Your task to perform on an android device: turn on bluetooth scan Image 0: 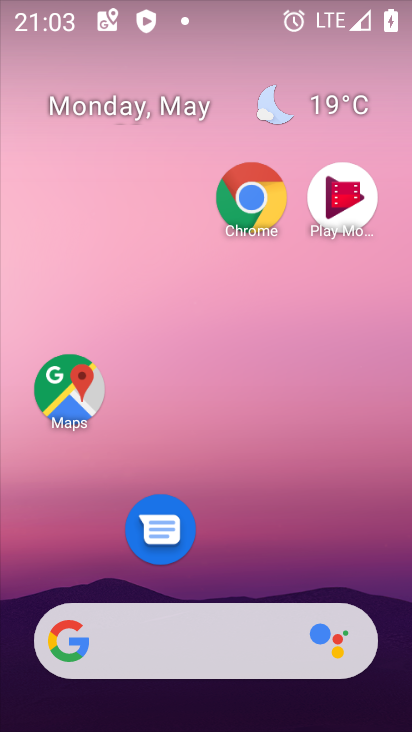
Step 0: drag from (244, 538) to (239, 20)
Your task to perform on an android device: turn on bluetooth scan Image 1: 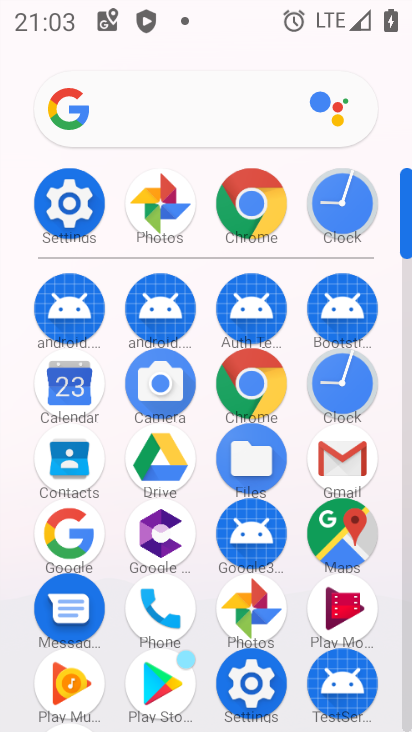
Step 1: click (67, 202)
Your task to perform on an android device: turn on bluetooth scan Image 2: 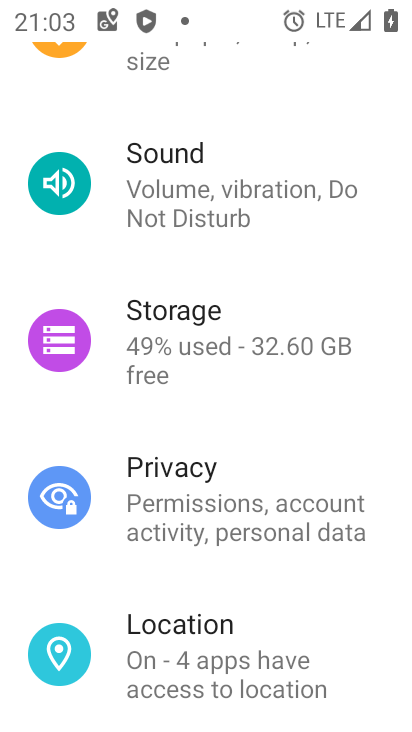
Step 2: drag from (208, 223) to (205, 596)
Your task to perform on an android device: turn on bluetooth scan Image 3: 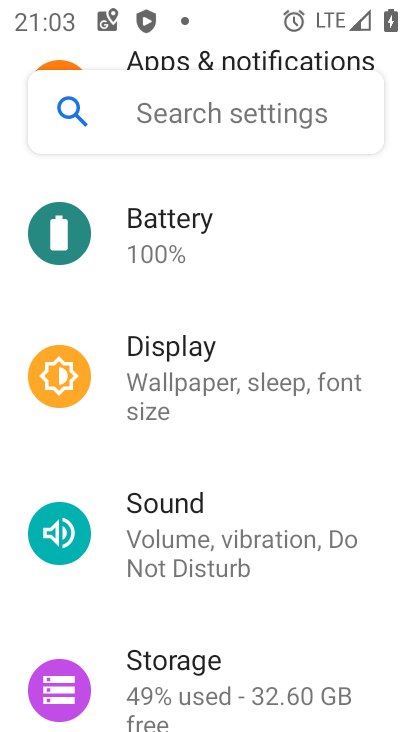
Step 3: drag from (256, 318) to (252, 599)
Your task to perform on an android device: turn on bluetooth scan Image 4: 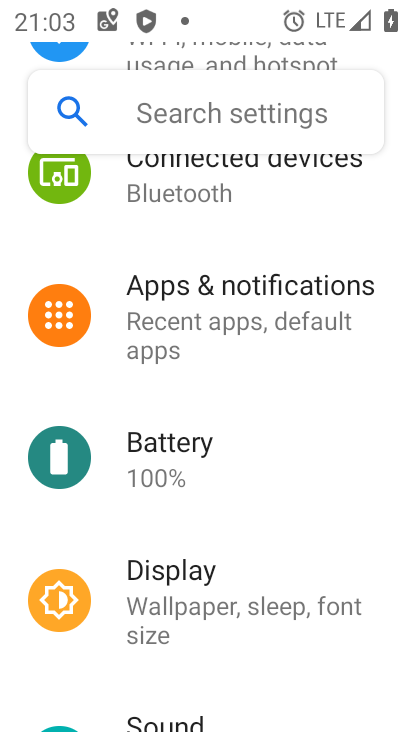
Step 4: drag from (264, 283) to (253, 612)
Your task to perform on an android device: turn on bluetooth scan Image 5: 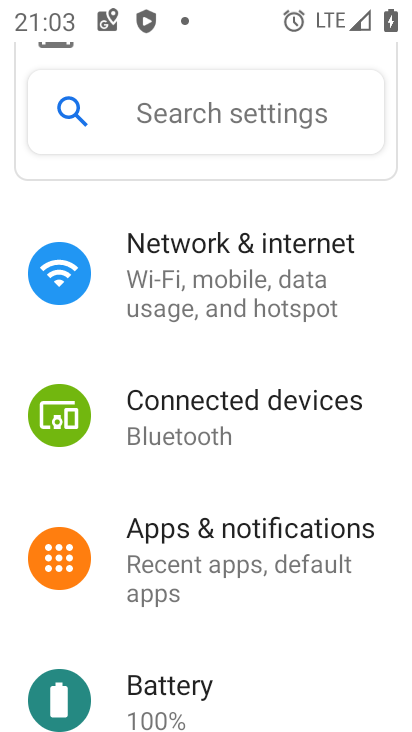
Step 5: drag from (238, 694) to (227, 240)
Your task to perform on an android device: turn on bluetooth scan Image 6: 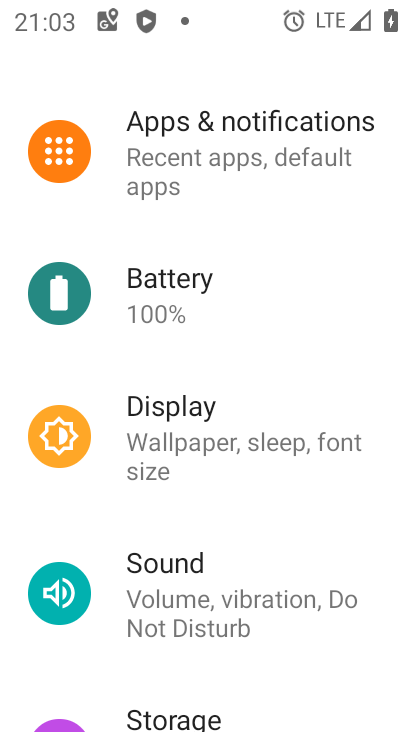
Step 6: drag from (224, 610) to (232, 219)
Your task to perform on an android device: turn on bluetooth scan Image 7: 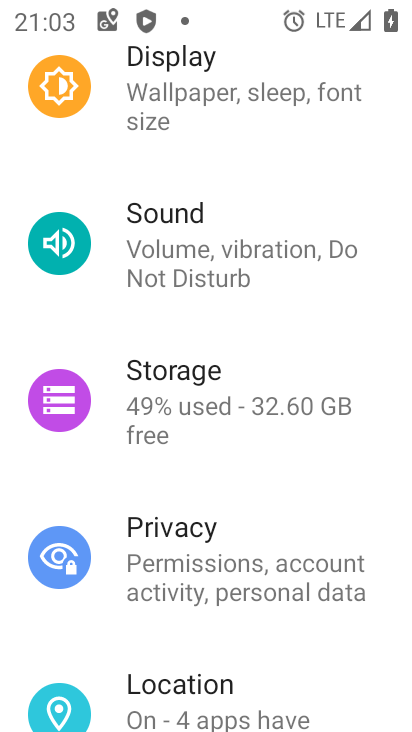
Step 7: click (180, 721)
Your task to perform on an android device: turn on bluetooth scan Image 8: 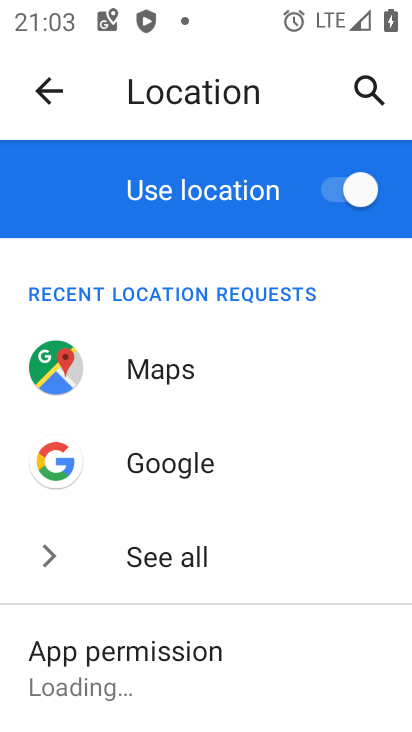
Step 8: drag from (185, 679) to (196, 274)
Your task to perform on an android device: turn on bluetooth scan Image 9: 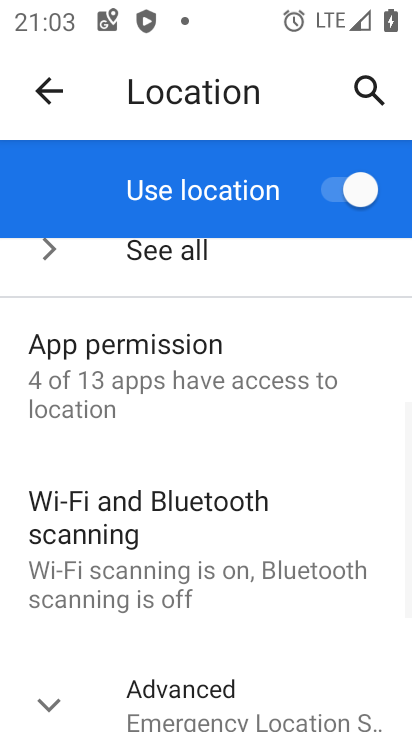
Step 9: click (120, 535)
Your task to perform on an android device: turn on bluetooth scan Image 10: 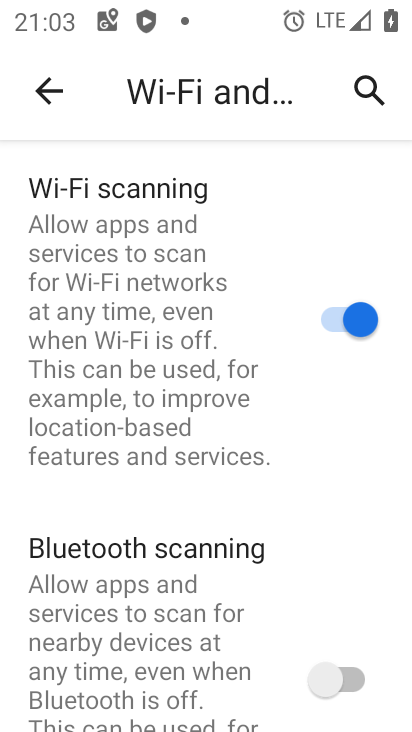
Step 10: click (354, 679)
Your task to perform on an android device: turn on bluetooth scan Image 11: 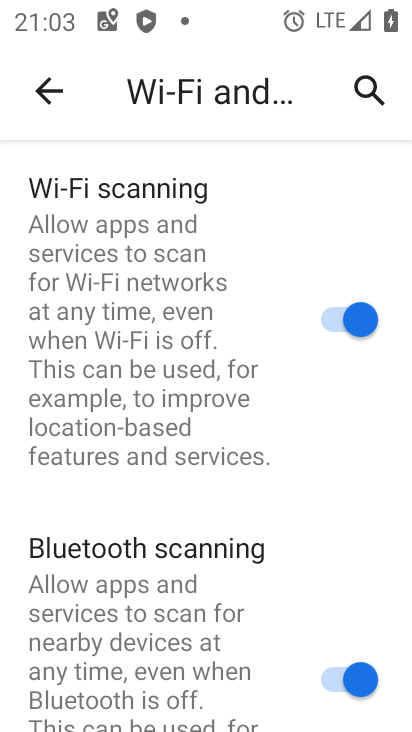
Step 11: task complete